Your task to perform on an android device: set the timer Image 0: 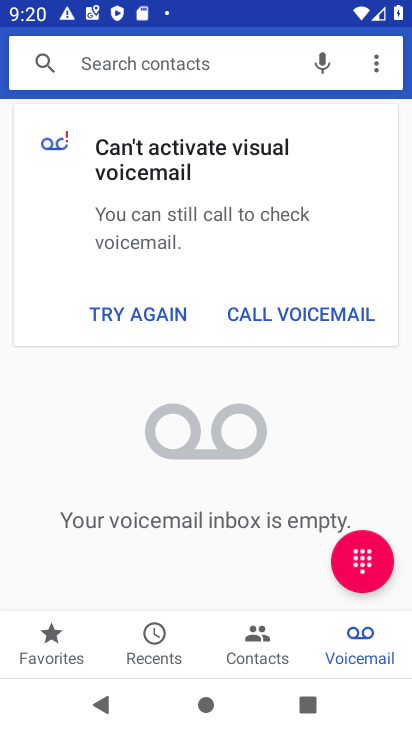
Step 0: press home button
Your task to perform on an android device: set the timer Image 1: 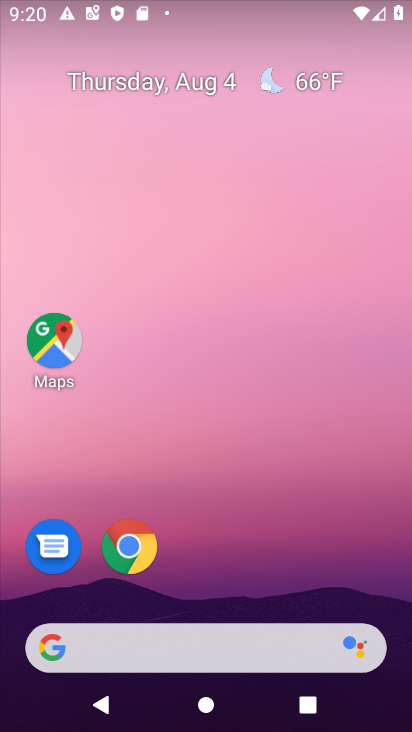
Step 1: drag from (222, 607) to (248, 96)
Your task to perform on an android device: set the timer Image 2: 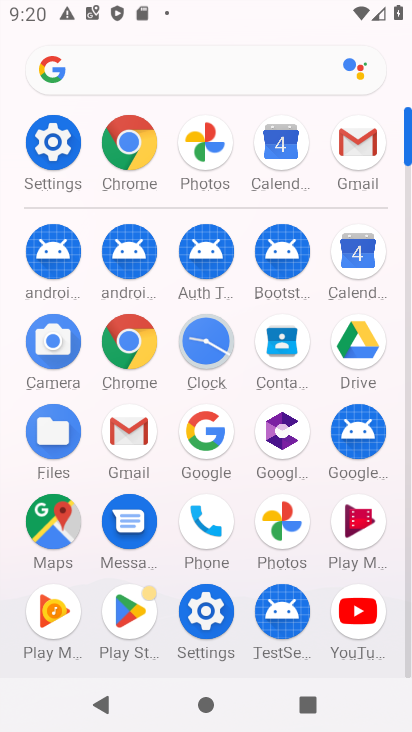
Step 2: click (201, 350)
Your task to perform on an android device: set the timer Image 3: 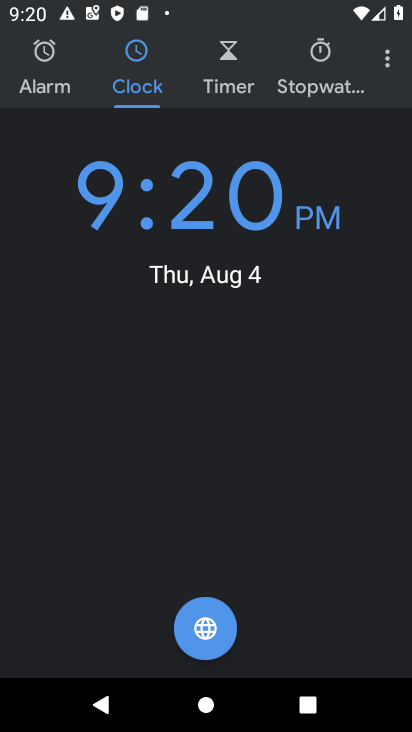
Step 3: click (233, 55)
Your task to perform on an android device: set the timer Image 4: 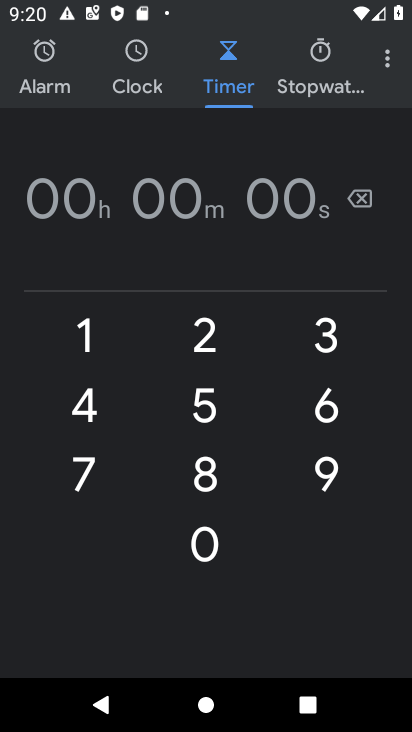
Step 4: click (195, 336)
Your task to perform on an android device: set the timer Image 5: 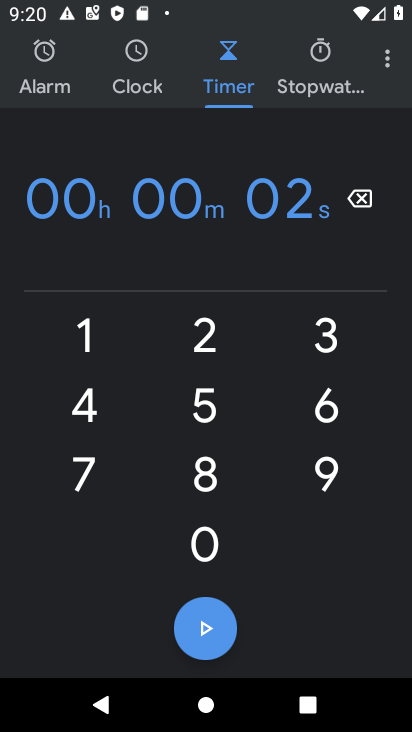
Step 5: click (202, 354)
Your task to perform on an android device: set the timer Image 6: 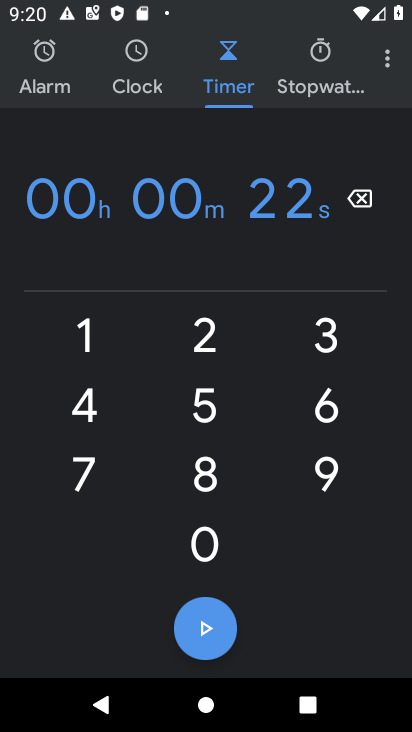
Step 6: click (109, 345)
Your task to perform on an android device: set the timer Image 7: 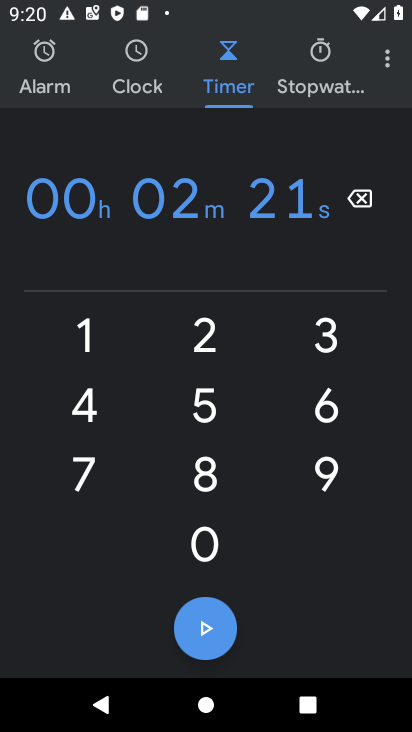
Step 7: click (221, 404)
Your task to perform on an android device: set the timer Image 8: 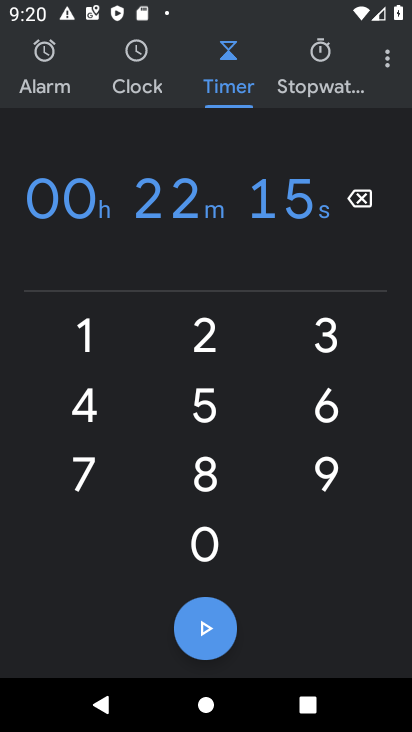
Step 8: click (343, 405)
Your task to perform on an android device: set the timer Image 9: 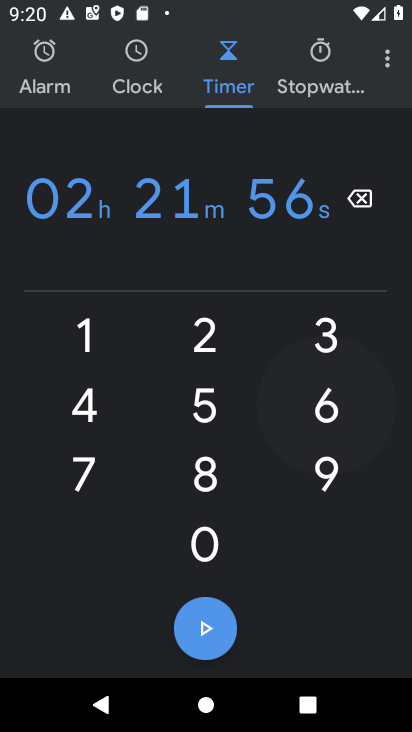
Step 9: click (331, 469)
Your task to perform on an android device: set the timer Image 10: 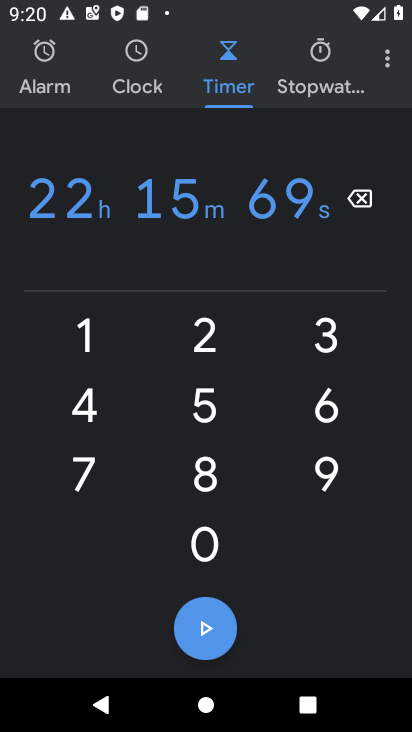
Step 10: click (203, 627)
Your task to perform on an android device: set the timer Image 11: 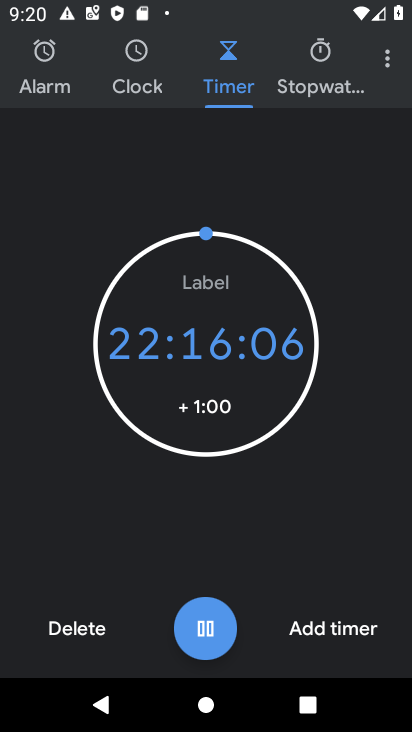
Step 11: task complete